Your task to perform on an android device: Open the web browser Image 0: 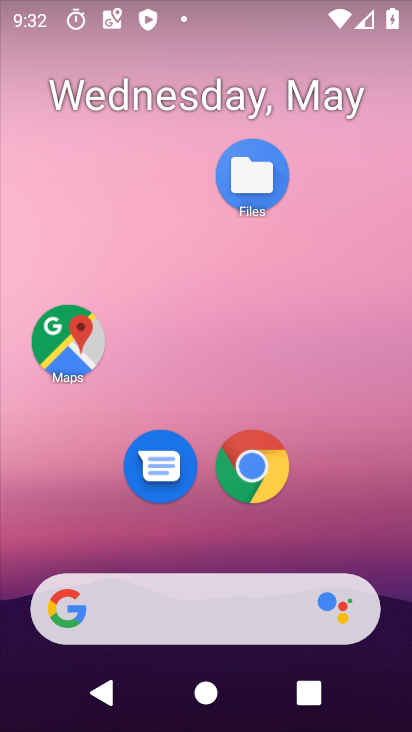
Step 0: drag from (327, 515) to (147, 29)
Your task to perform on an android device: Open the web browser Image 1: 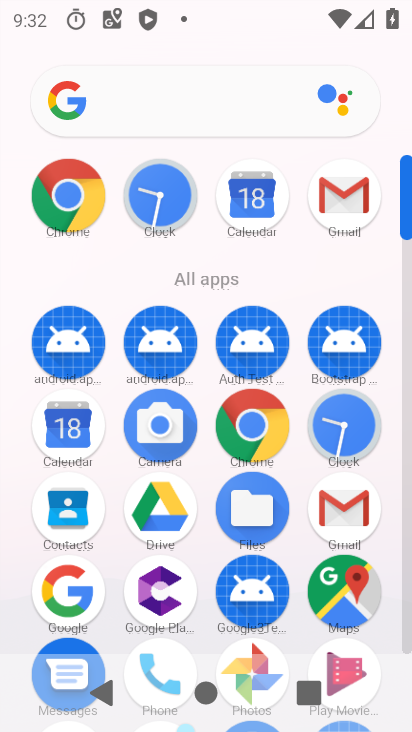
Step 1: click (61, 192)
Your task to perform on an android device: Open the web browser Image 2: 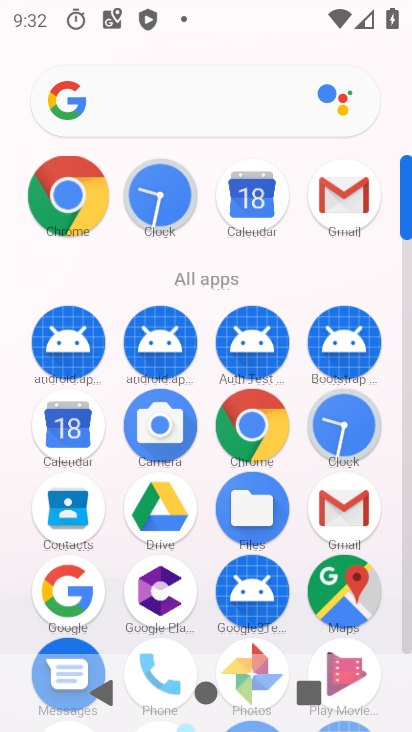
Step 2: click (61, 192)
Your task to perform on an android device: Open the web browser Image 3: 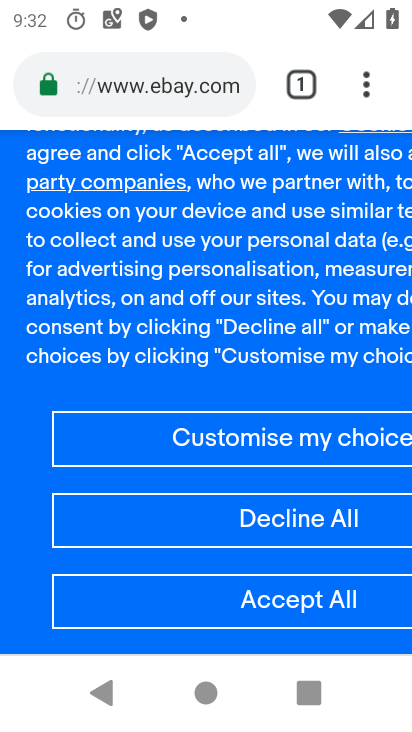
Step 3: click (354, 98)
Your task to perform on an android device: Open the web browser Image 4: 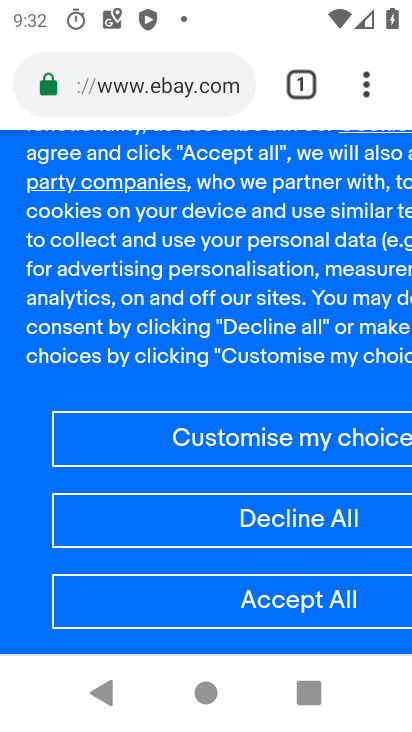
Step 4: press back button
Your task to perform on an android device: Open the web browser Image 5: 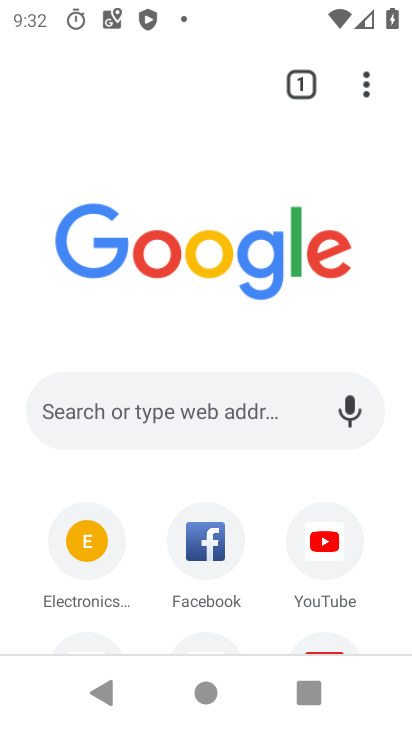
Step 5: drag from (297, 580) to (220, 8)
Your task to perform on an android device: Open the web browser Image 6: 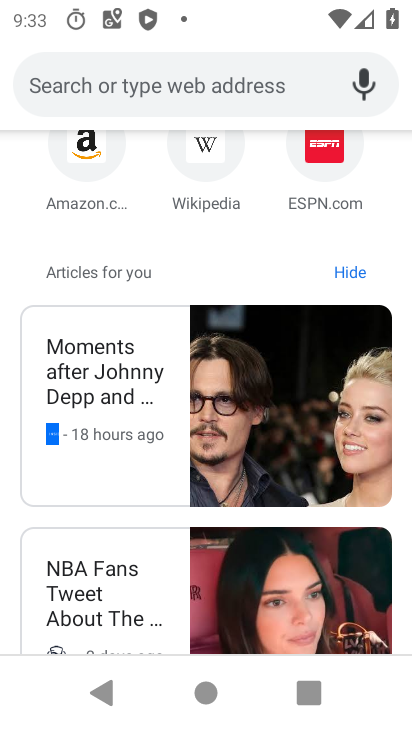
Step 6: press back button
Your task to perform on an android device: Open the web browser Image 7: 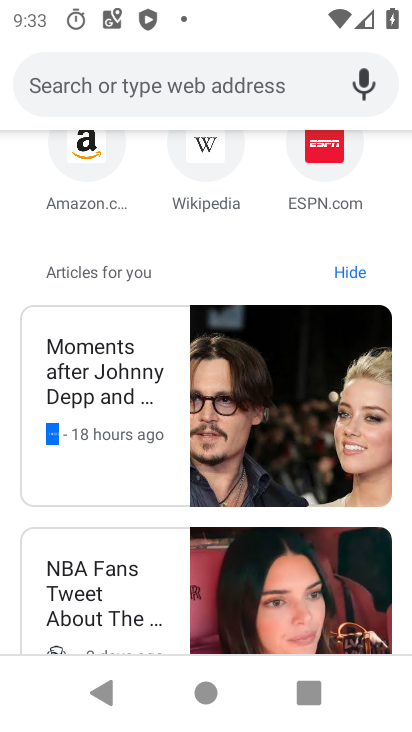
Step 7: press back button
Your task to perform on an android device: Open the web browser Image 8: 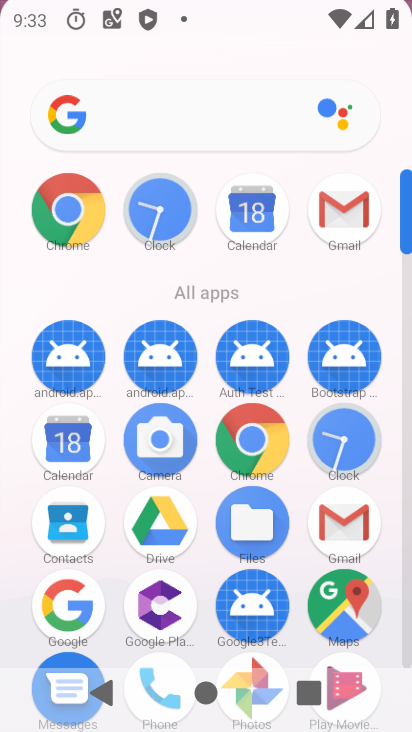
Step 8: press back button
Your task to perform on an android device: Open the web browser Image 9: 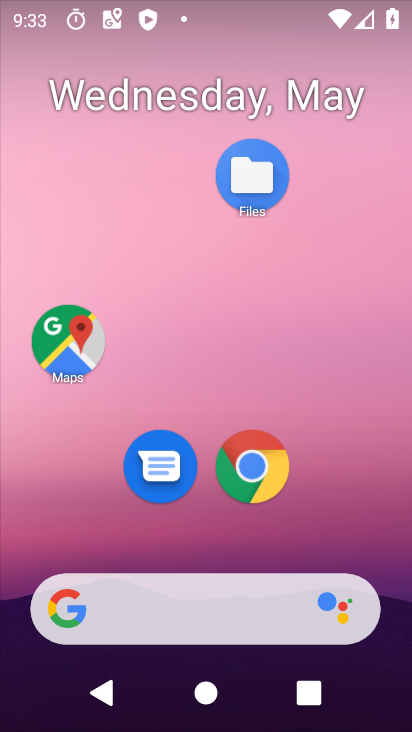
Step 9: drag from (288, 525) to (198, 151)
Your task to perform on an android device: Open the web browser Image 10: 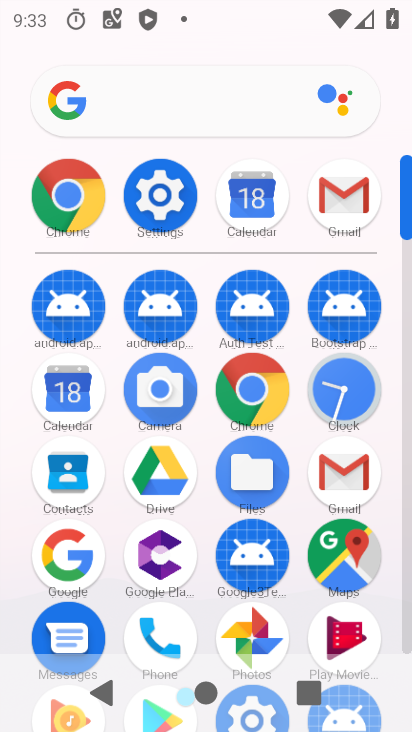
Step 10: click (119, 94)
Your task to perform on an android device: Open the web browser Image 11: 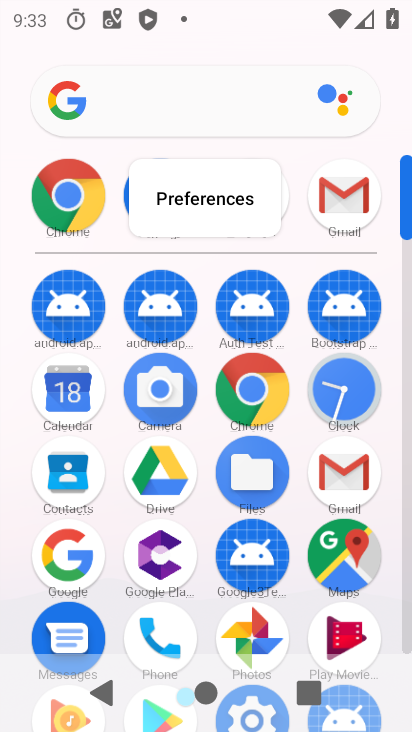
Step 11: click (114, 103)
Your task to perform on an android device: Open the web browser Image 12: 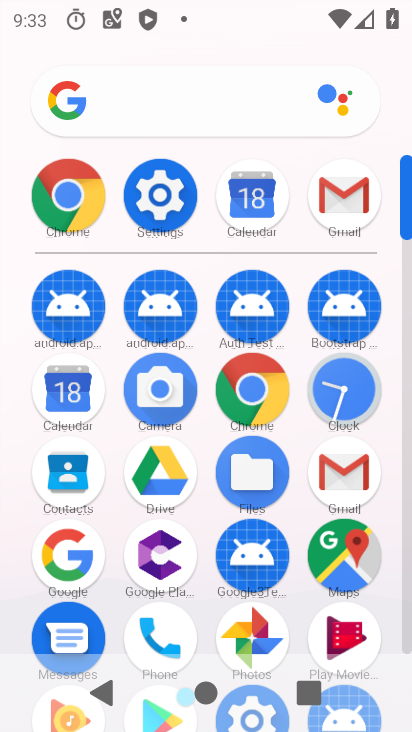
Step 12: click (104, 95)
Your task to perform on an android device: Open the web browser Image 13: 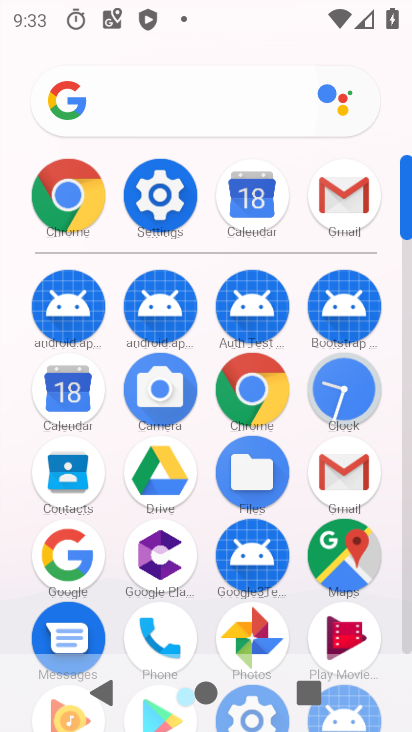
Step 13: click (105, 95)
Your task to perform on an android device: Open the web browser Image 14: 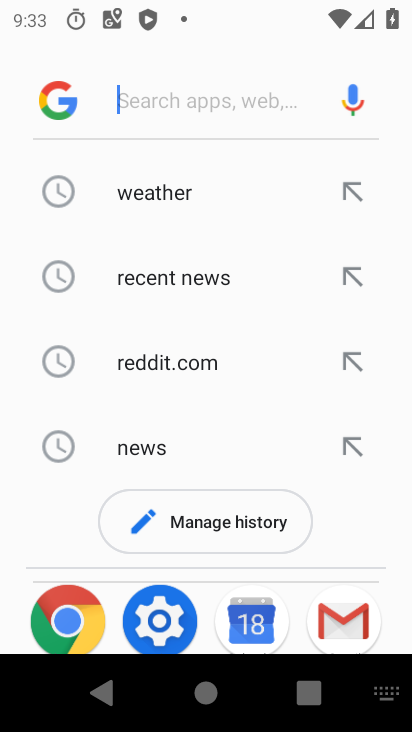
Step 14: click (124, 98)
Your task to perform on an android device: Open the web browser Image 15: 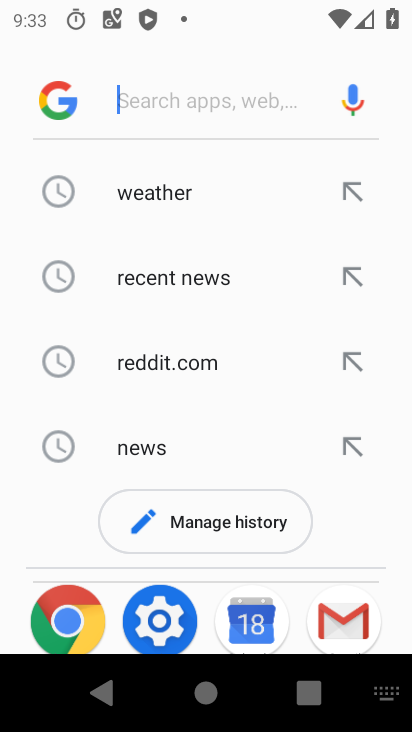
Step 15: click (110, 83)
Your task to perform on an android device: Open the web browser Image 16: 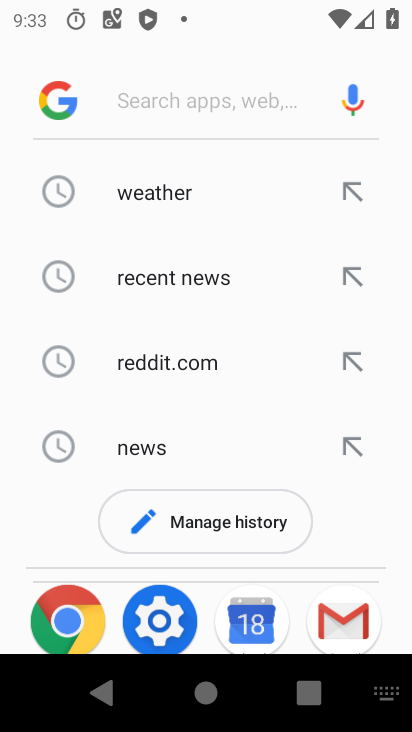
Step 16: press back button
Your task to perform on an android device: Open the web browser Image 17: 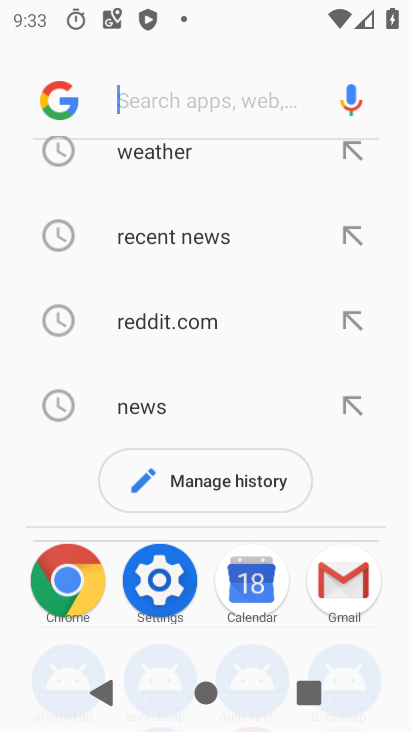
Step 17: press back button
Your task to perform on an android device: Open the web browser Image 18: 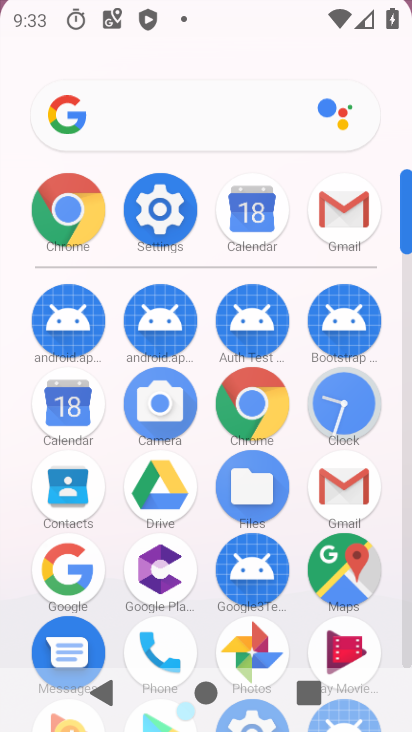
Step 18: press back button
Your task to perform on an android device: Open the web browser Image 19: 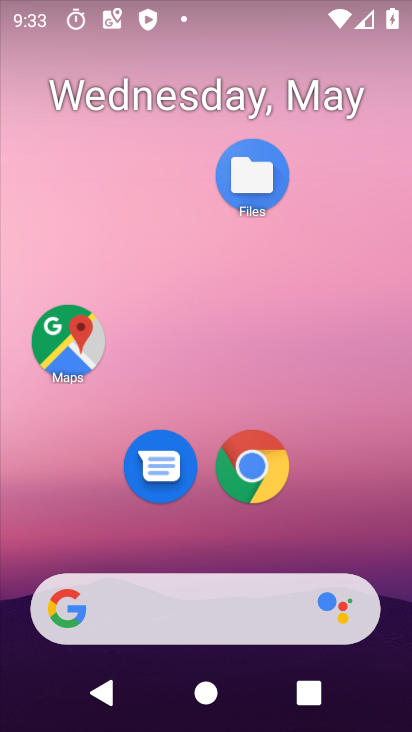
Step 19: click (100, 609)
Your task to perform on an android device: Open the web browser Image 20: 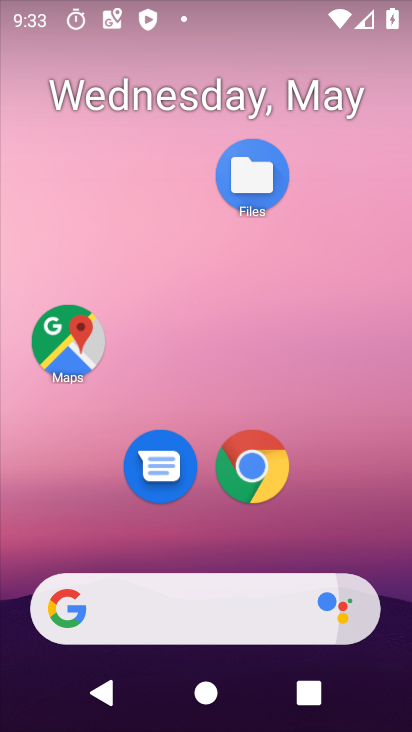
Step 20: click (99, 610)
Your task to perform on an android device: Open the web browser Image 21: 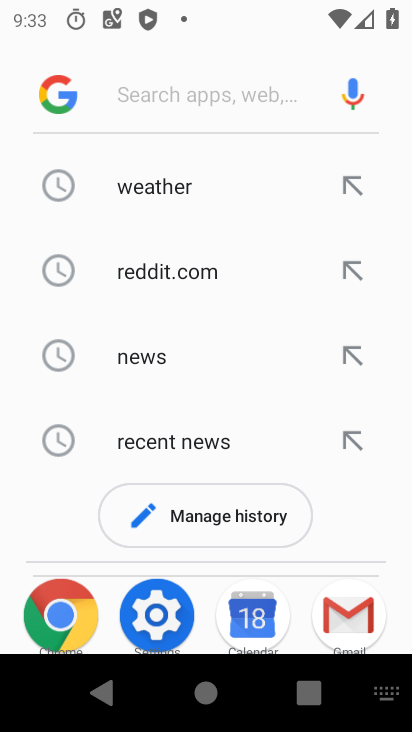
Step 21: press back button
Your task to perform on an android device: Open the web browser Image 22: 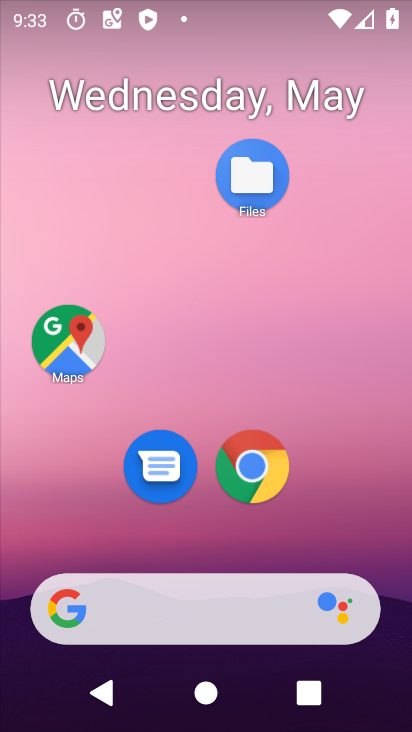
Step 22: drag from (323, 541) to (199, 0)
Your task to perform on an android device: Open the web browser Image 23: 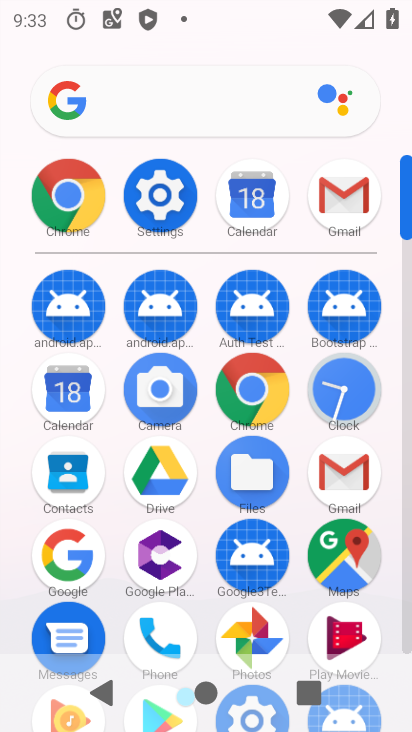
Step 23: click (255, 382)
Your task to perform on an android device: Open the web browser Image 24: 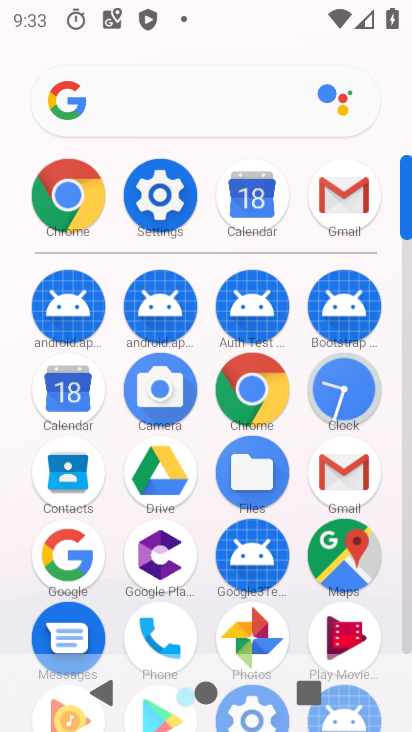
Step 24: click (255, 382)
Your task to perform on an android device: Open the web browser Image 25: 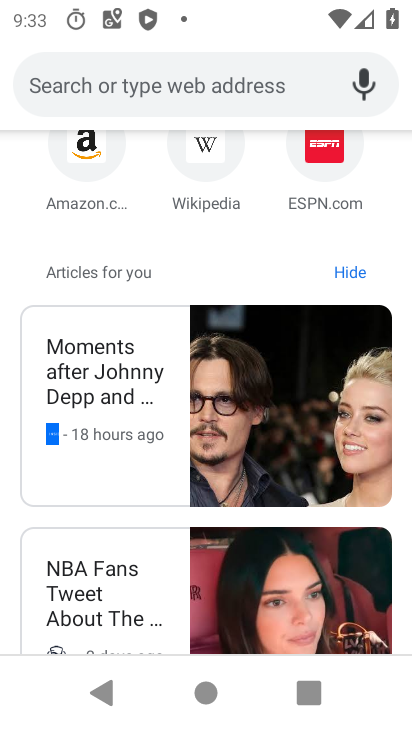
Step 25: drag from (271, 216) to (303, 490)
Your task to perform on an android device: Open the web browser Image 26: 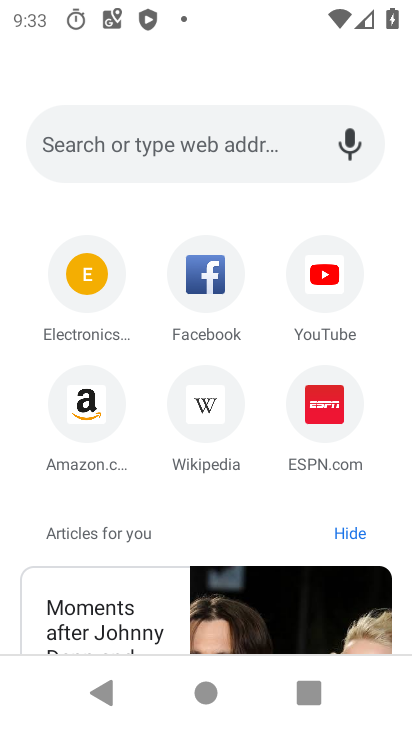
Step 26: drag from (253, 187) to (260, 438)
Your task to perform on an android device: Open the web browser Image 27: 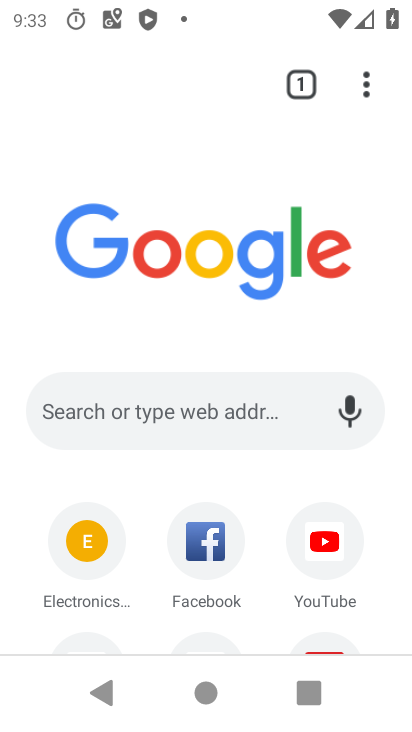
Step 27: drag from (365, 91) to (89, 169)
Your task to perform on an android device: Open the web browser Image 28: 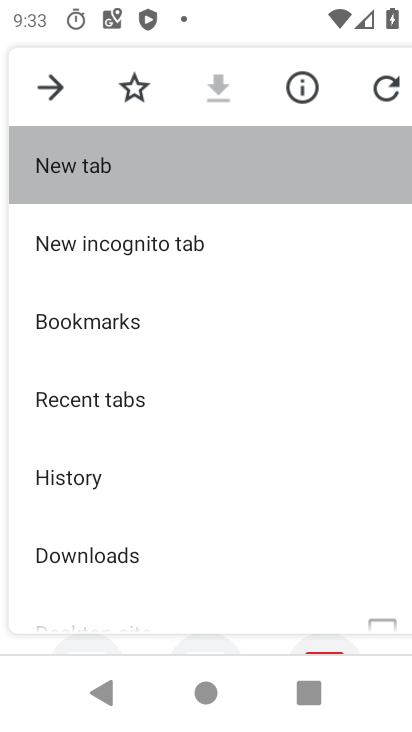
Step 28: click (86, 170)
Your task to perform on an android device: Open the web browser Image 29: 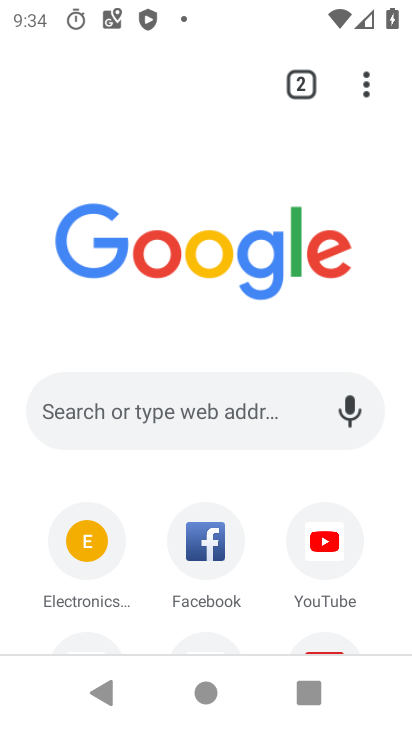
Step 29: task complete